Your task to perform on an android device: toggle airplane mode Image 0: 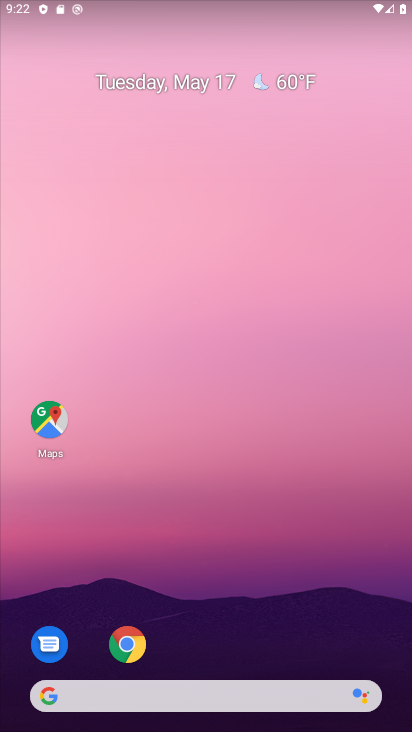
Step 0: drag from (195, 607) to (273, 77)
Your task to perform on an android device: toggle airplane mode Image 1: 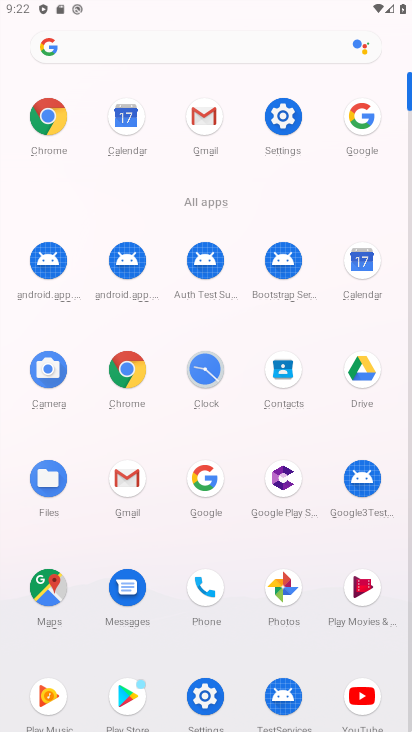
Step 1: click (290, 121)
Your task to perform on an android device: toggle airplane mode Image 2: 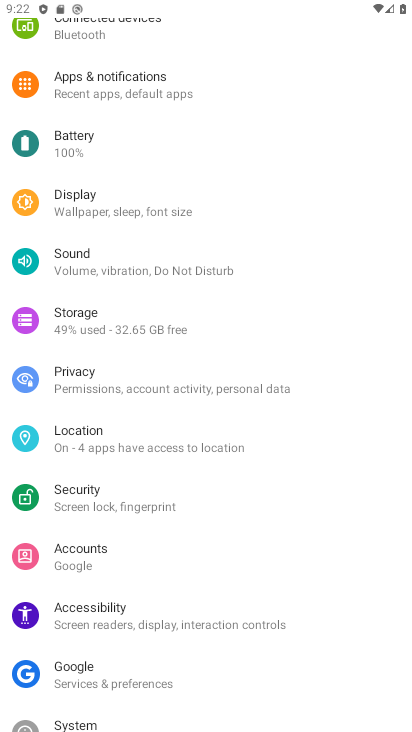
Step 2: drag from (175, 108) to (201, 396)
Your task to perform on an android device: toggle airplane mode Image 3: 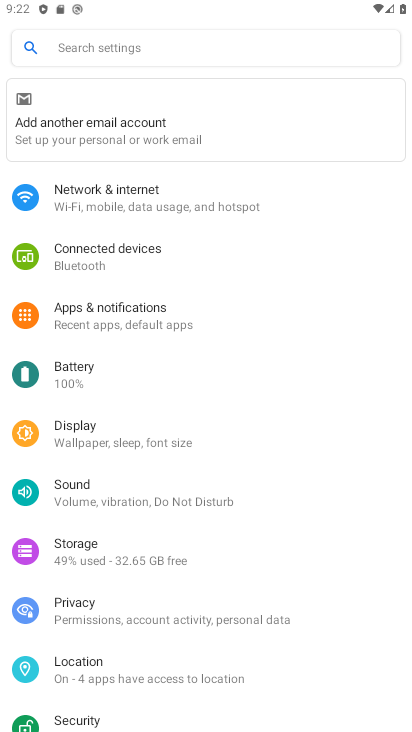
Step 3: click (208, 209)
Your task to perform on an android device: toggle airplane mode Image 4: 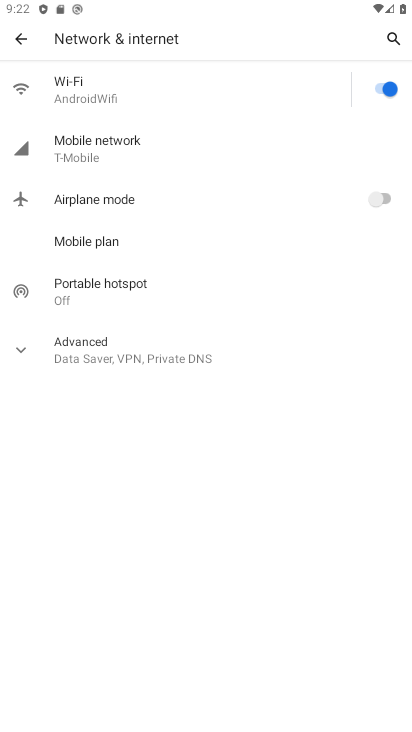
Step 4: click (386, 200)
Your task to perform on an android device: toggle airplane mode Image 5: 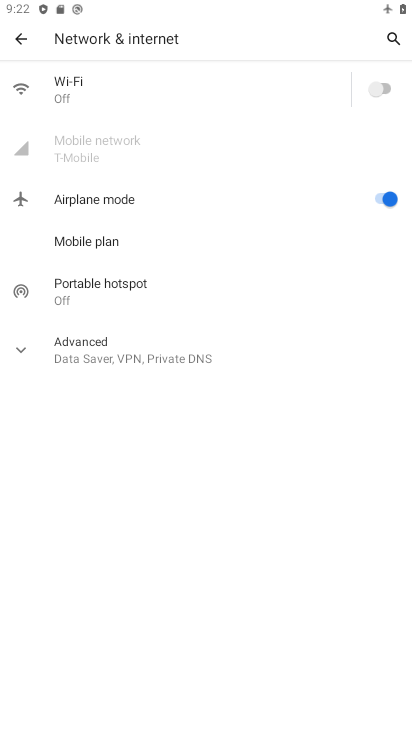
Step 5: task complete